Your task to perform on an android device: open device folders in google photos Image 0: 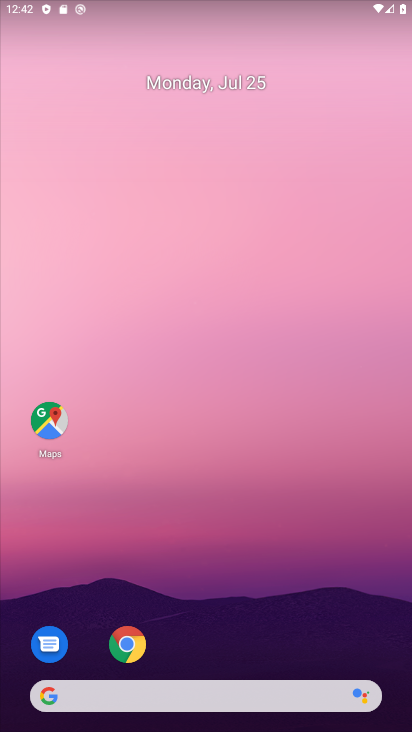
Step 0: drag from (238, 693) to (217, 79)
Your task to perform on an android device: open device folders in google photos Image 1: 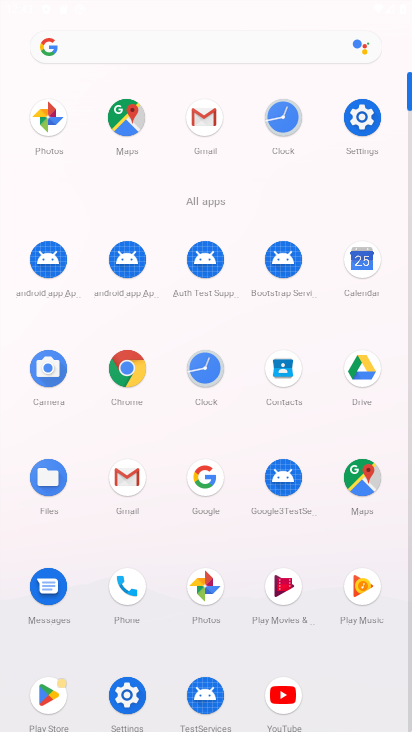
Step 1: drag from (215, 329) to (247, 74)
Your task to perform on an android device: open device folders in google photos Image 2: 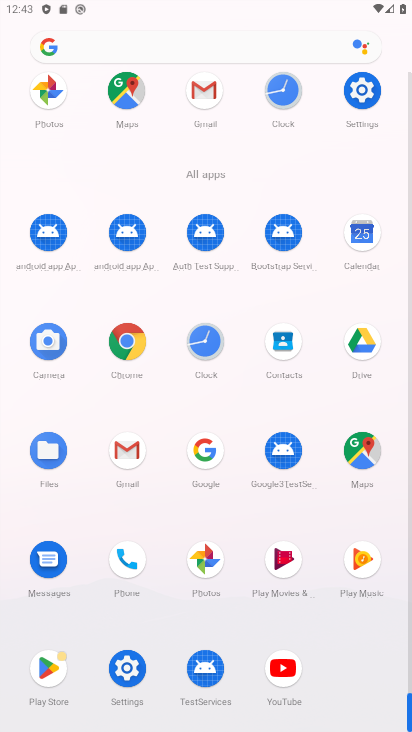
Step 2: click (194, 570)
Your task to perform on an android device: open device folders in google photos Image 3: 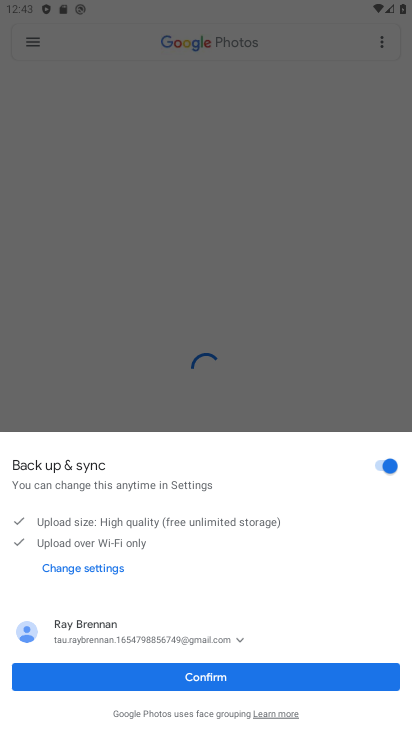
Step 3: click (277, 674)
Your task to perform on an android device: open device folders in google photos Image 4: 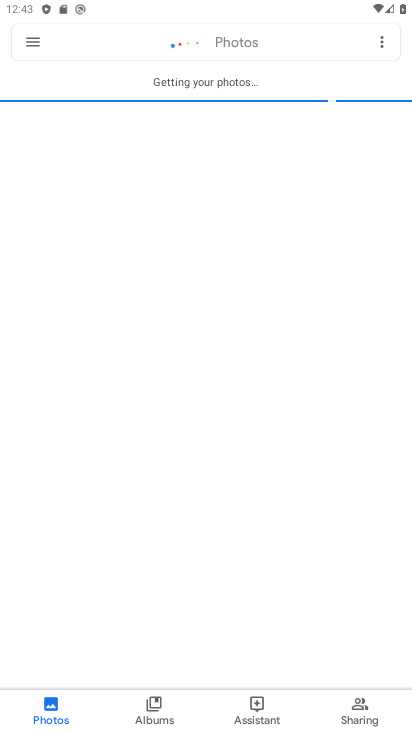
Step 4: click (38, 33)
Your task to perform on an android device: open device folders in google photos Image 5: 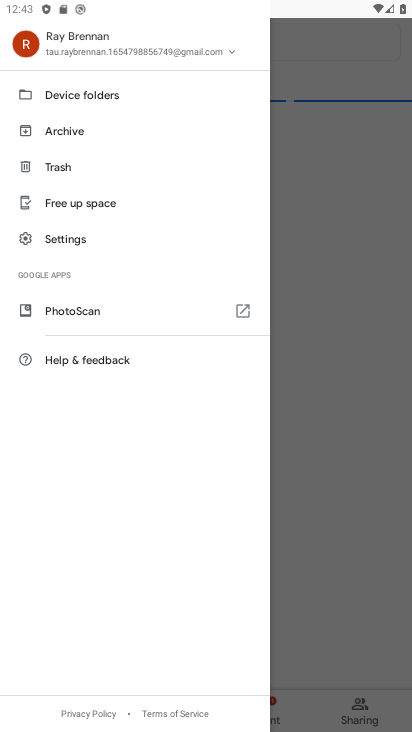
Step 5: click (78, 92)
Your task to perform on an android device: open device folders in google photos Image 6: 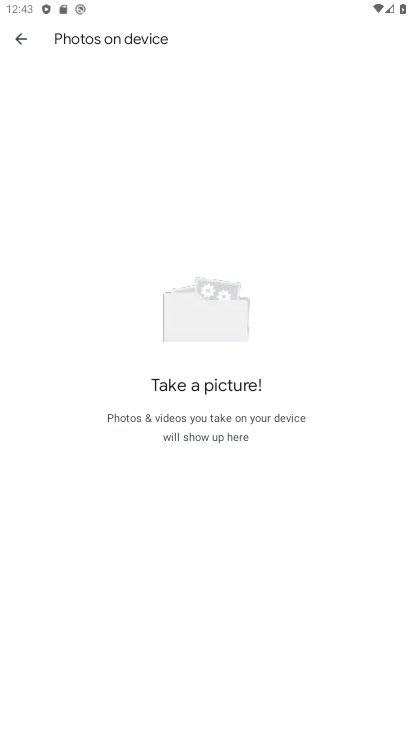
Step 6: task complete